Your task to perform on an android device: Go to Google maps Image 0: 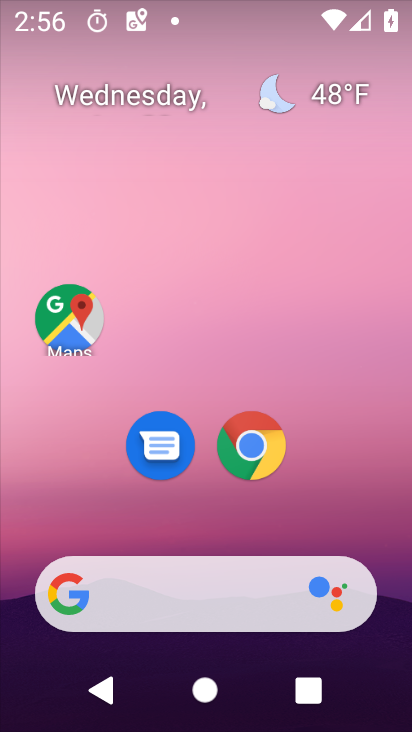
Step 0: click (70, 323)
Your task to perform on an android device: Go to Google maps Image 1: 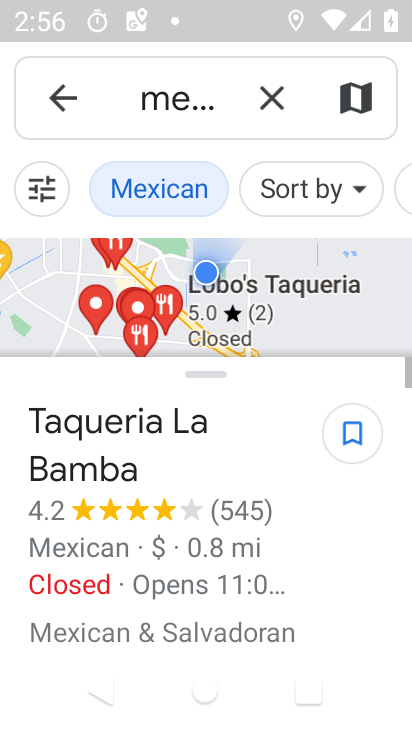
Step 1: task complete